Your task to perform on an android device: Turn off the flashlight Image 0: 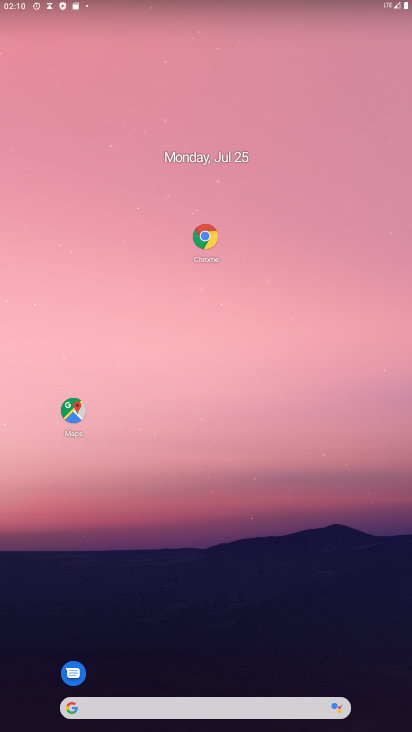
Step 0: drag from (223, 689) to (211, 31)
Your task to perform on an android device: Turn off the flashlight Image 1: 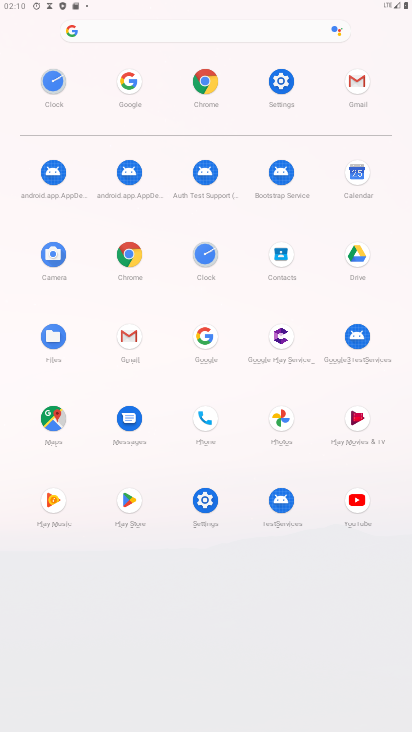
Step 1: click (199, 641)
Your task to perform on an android device: Turn off the flashlight Image 2: 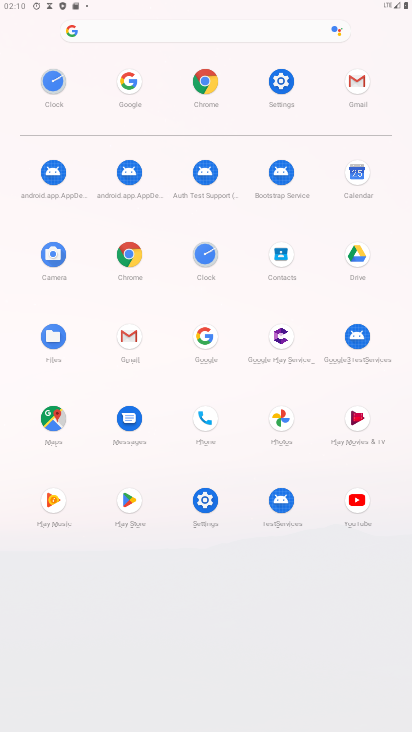
Step 2: task complete